Your task to perform on an android device: change the clock display to analog Image 0: 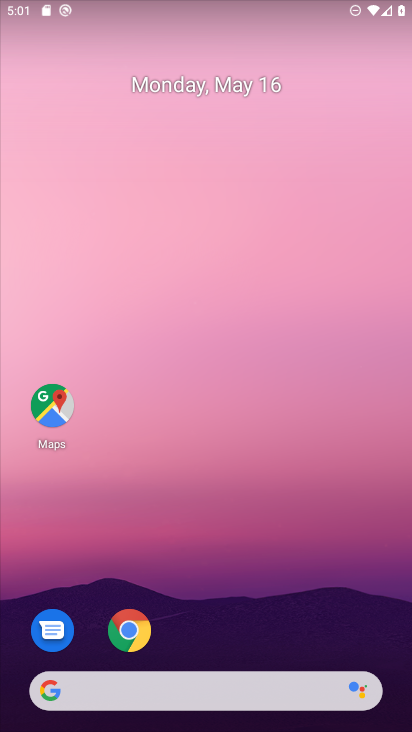
Step 0: press home button
Your task to perform on an android device: change the clock display to analog Image 1: 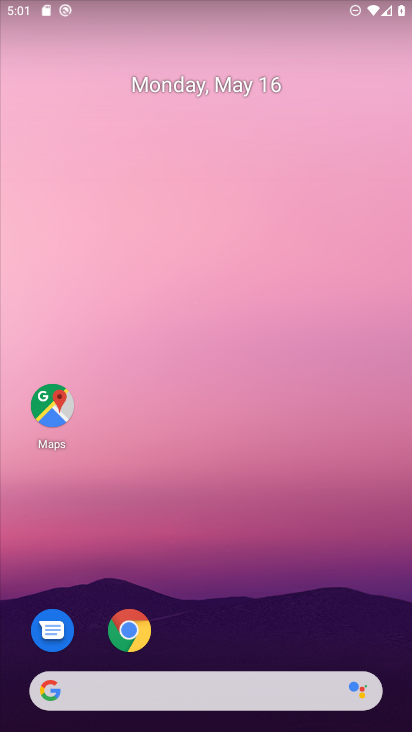
Step 1: drag from (359, 621) to (362, 55)
Your task to perform on an android device: change the clock display to analog Image 2: 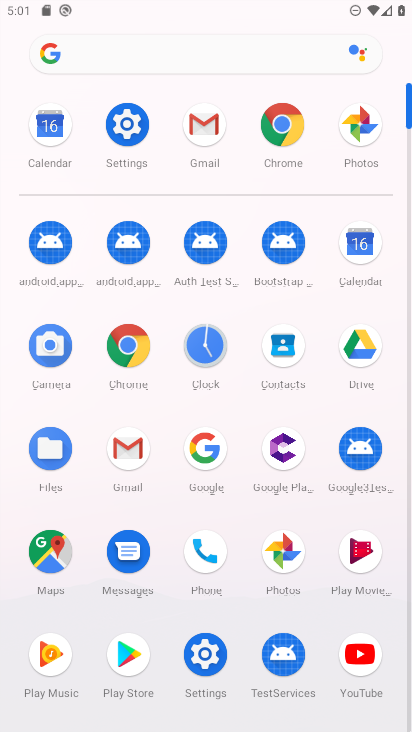
Step 2: click (196, 654)
Your task to perform on an android device: change the clock display to analog Image 3: 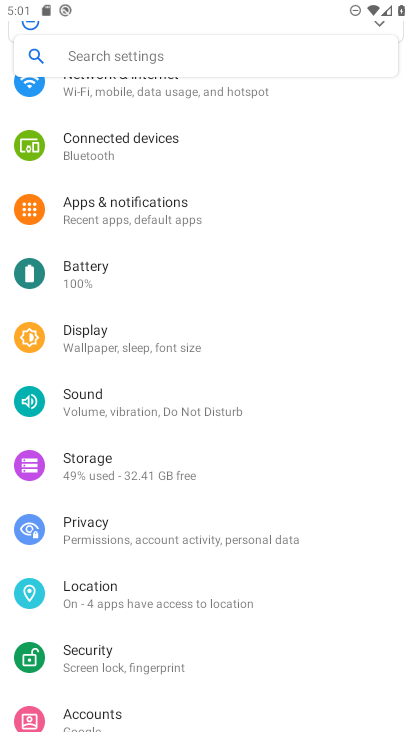
Step 3: press home button
Your task to perform on an android device: change the clock display to analog Image 4: 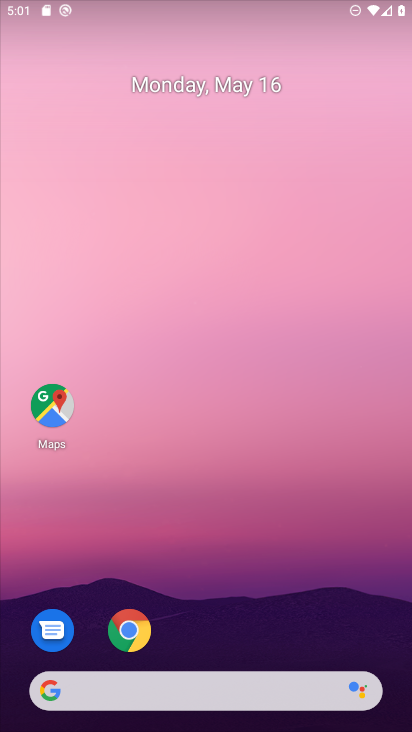
Step 4: drag from (305, 480) to (351, 1)
Your task to perform on an android device: change the clock display to analog Image 5: 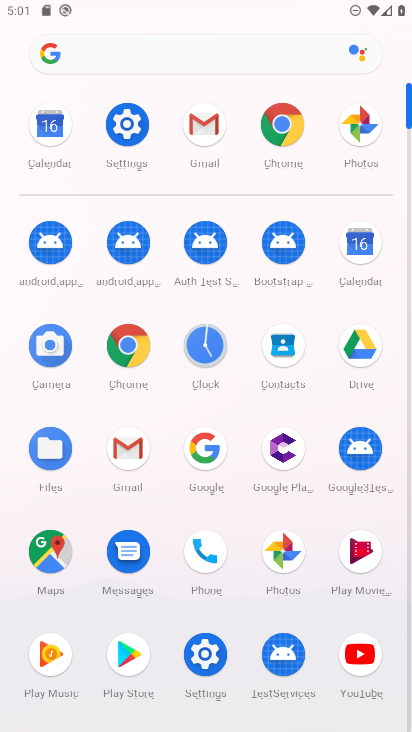
Step 5: click (207, 338)
Your task to perform on an android device: change the clock display to analog Image 6: 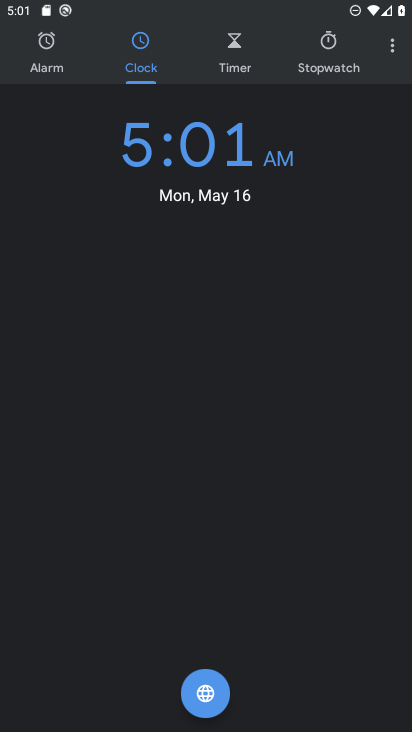
Step 6: click (387, 48)
Your task to perform on an android device: change the clock display to analog Image 7: 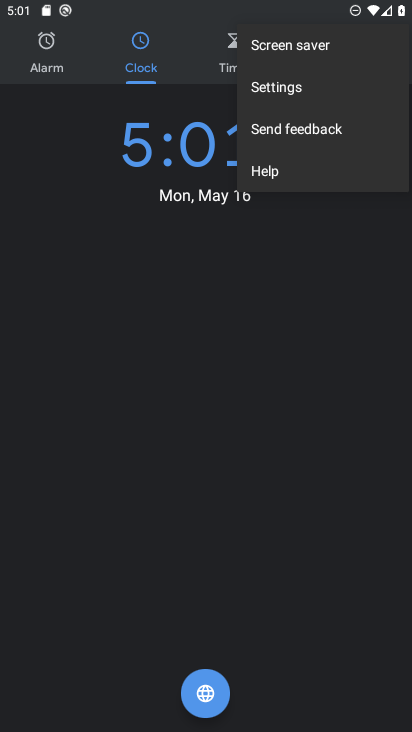
Step 7: click (373, 97)
Your task to perform on an android device: change the clock display to analog Image 8: 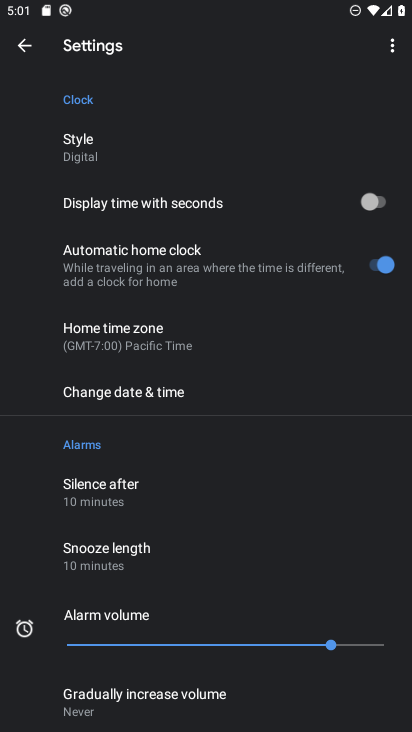
Step 8: click (94, 158)
Your task to perform on an android device: change the clock display to analog Image 9: 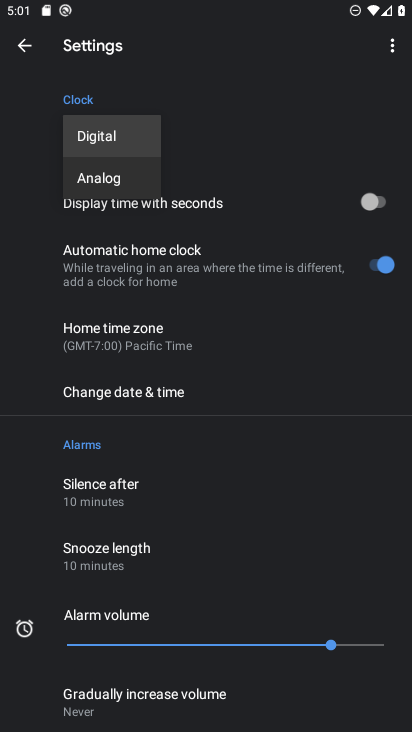
Step 9: click (106, 177)
Your task to perform on an android device: change the clock display to analog Image 10: 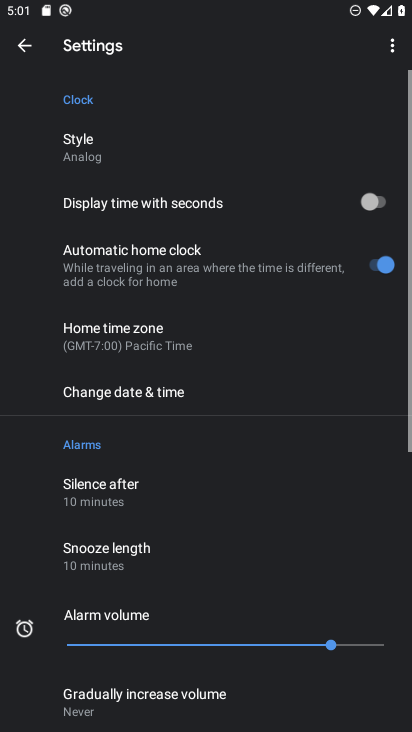
Step 10: task complete